Your task to perform on an android device: turn off picture-in-picture Image 0: 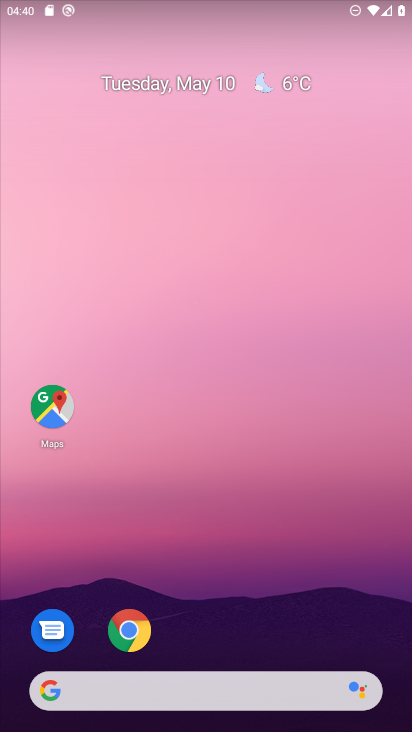
Step 0: click (129, 638)
Your task to perform on an android device: turn off picture-in-picture Image 1: 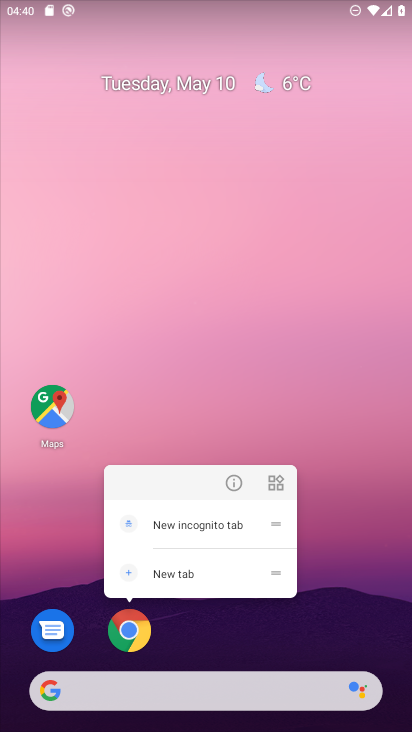
Step 1: click (235, 493)
Your task to perform on an android device: turn off picture-in-picture Image 2: 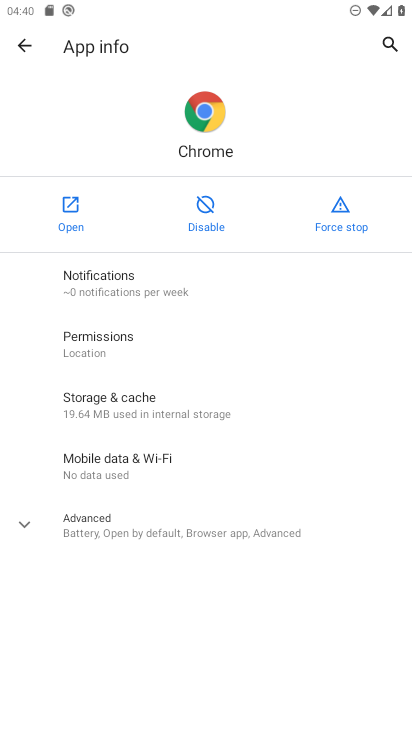
Step 2: click (195, 532)
Your task to perform on an android device: turn off picture-in-picture Image 3: 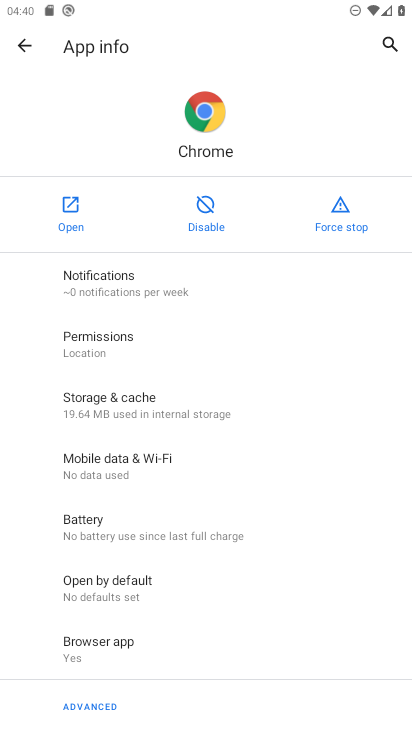
Step 3: drag from (138, 622) to (166, 251)
Your task to perform on an android device: turn off picture-in-picture Image 4: 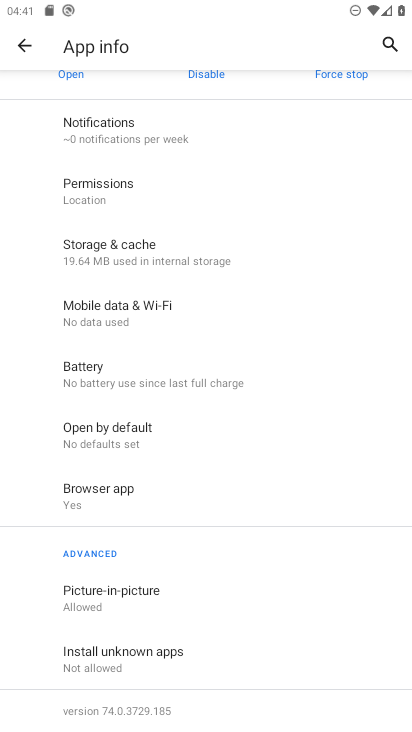
Step 4: click (110, 608)
Your task to perform on an android device: turn off picture-in-picture Image 5: 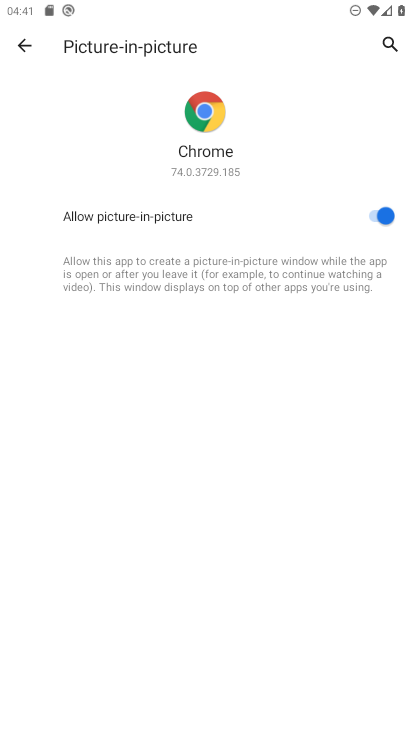
Step 5: click (386, 224)
Your task to perform on an android device: turn off picture-in-picture Image 6: 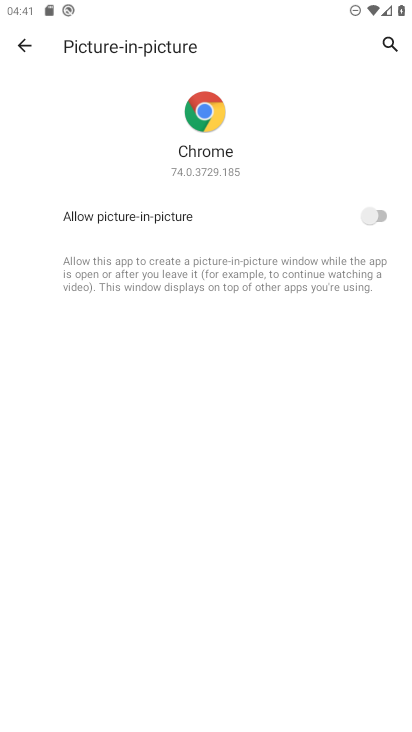
Step 6: task complete